Your task to perform on an android device: Open Google Chrome and click the shortcut for Amazon.com Image 0: 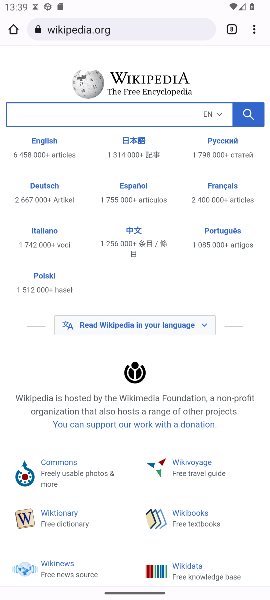
Step 0: press home button
Your task to perform on an android device: Open Google Chrome and click the shortcut for Amazon.com Image 1: 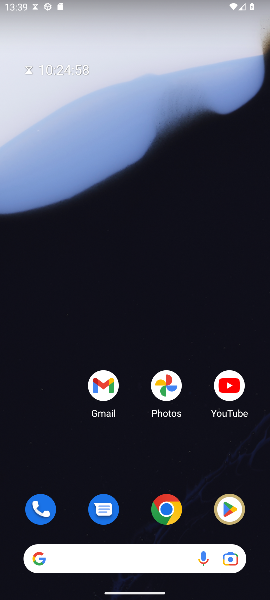
Step 1: click (168, 510)
Your task to perform on an android device: Open Google Chrome and click the shortcut for Amazon.com Image 2: 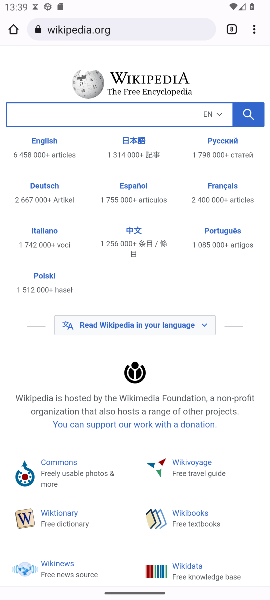
Step 2: click (230, 30)
Your task to perform on an android device: Open Google Chrome and click the shortcut for Amazon.com Image 3: 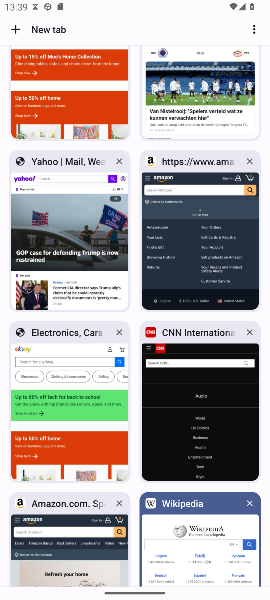
Step 3: click (20, 28)
Your task to perform on an android device: Open Google Chrome and click the shortcut for Amazon.com Image 4: 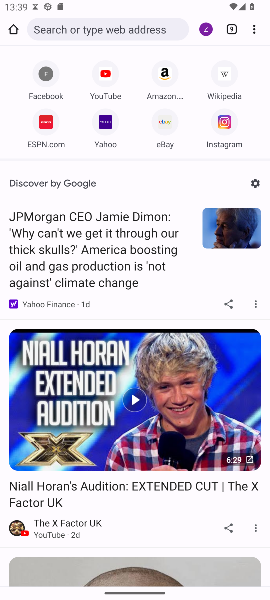
Step 4: click (167, 73)
Your task to perform on an android device: Open Google Chrome and click the shortcut for Amazon.com Image 5: 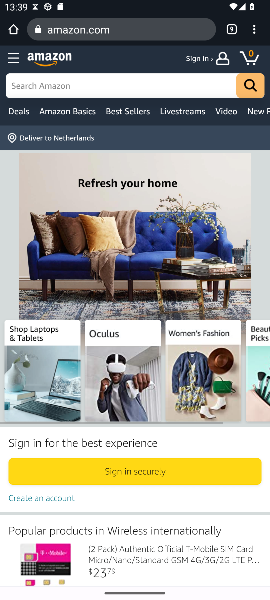
Step 5: task complete